Your task to perform on an android device: open wifi settings Image 0: 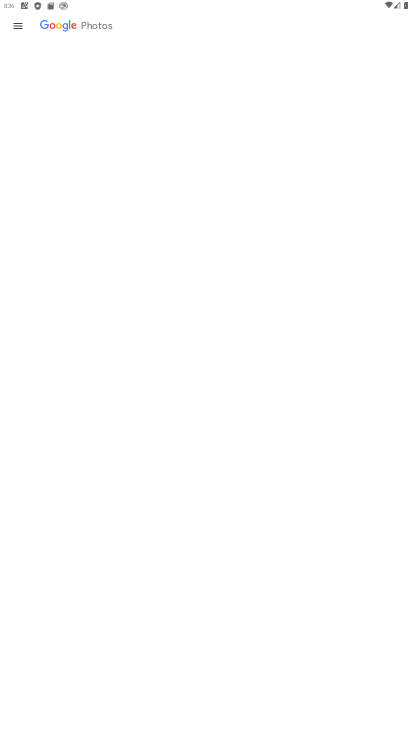
Step 0: press home button
Your task to perform on an android device: open wifi settings Image 1: 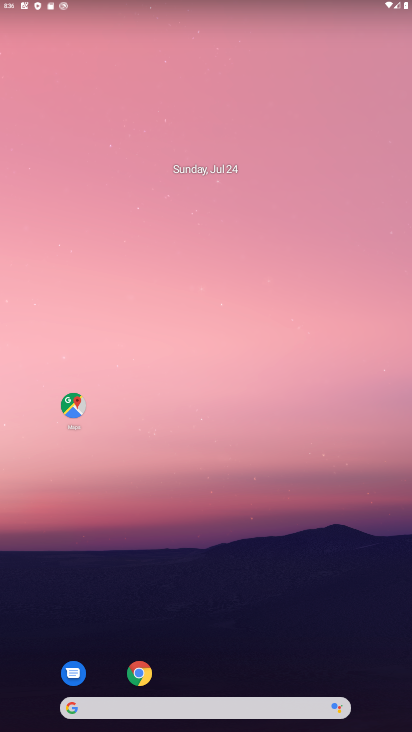
Step 1: drag from (205, 653) to (264, 82)
Your task to perform on an android device: open wifi settings Image 2: 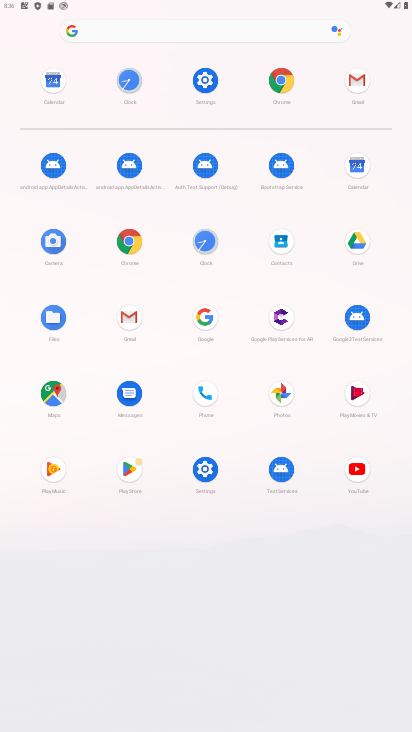
Step 2: click (202, 473)
Your task to perform on an android device: open wifi settings Image 3: 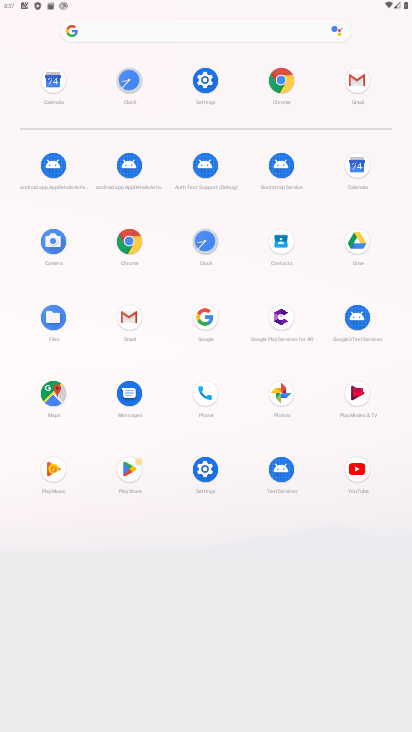
Step 3: click (202, 473)
Your task to perform on an android device: open wifi settings Image 4: 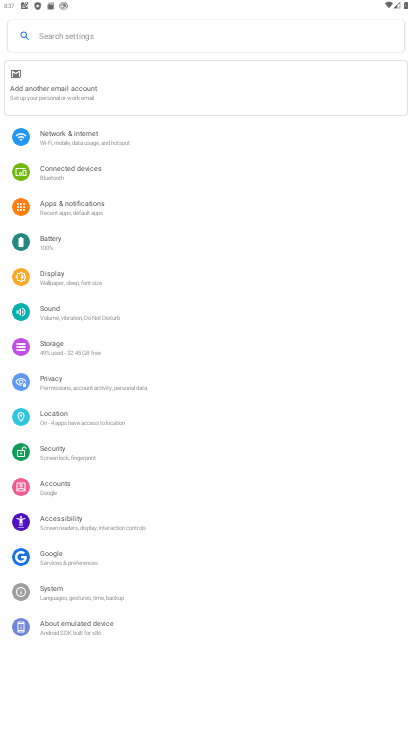
Step 4: click (60, 137)
Your task to perform on an android device: open wifi settings Image 5: 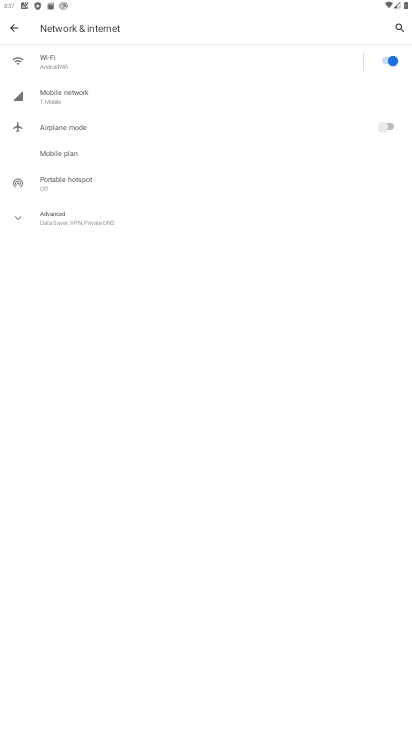
Step 5: click (240, 52)
Your task to perform on an android device: open wifi settings Image 6: 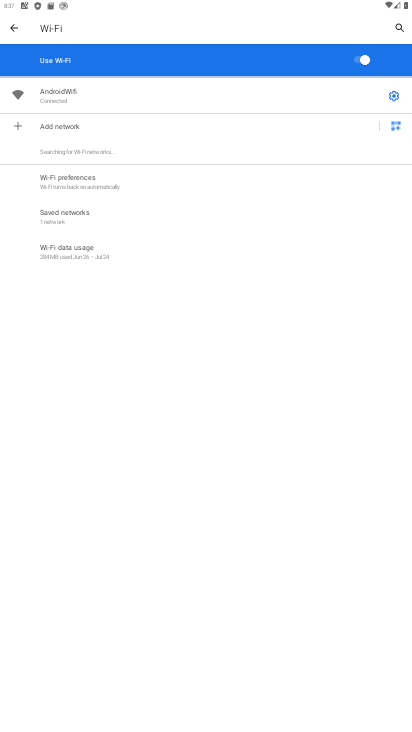
Step 6: task complete